Your task to perform on an android device: add a contact in the contacts app Image 0: 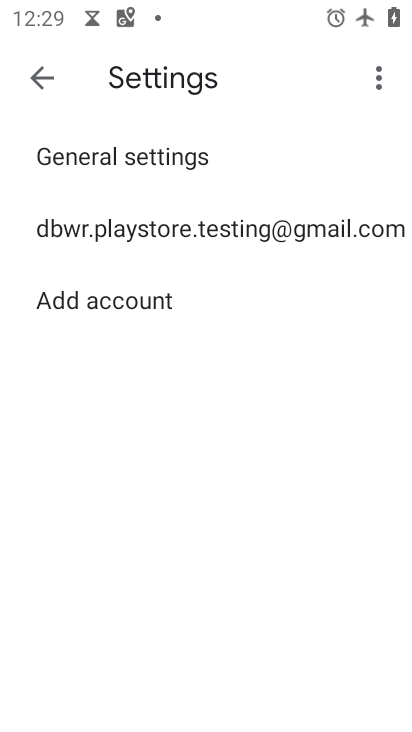
Step 0: press home button
Your task to perform on an android device: add a contact in the contacts app Image 1: 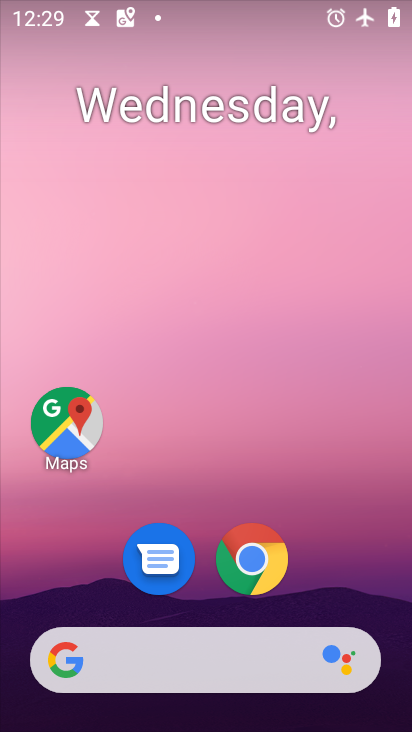
Step 1: drag from (344, 557) to (307, 44)
Your task to perform on an android device: add a contact in the contacts app Image 2: 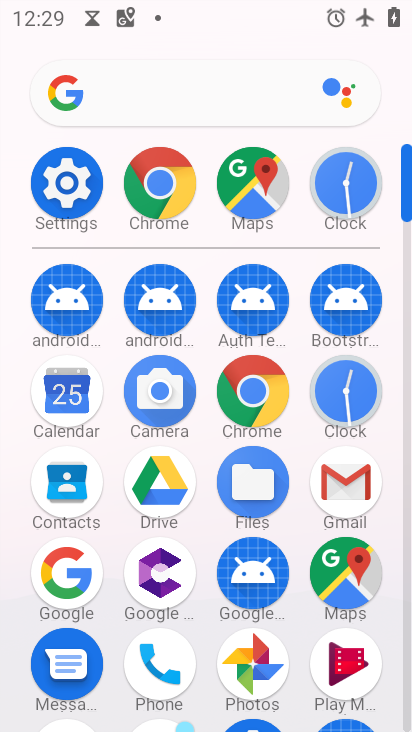
Step 2: drag from (390, 496) to (381, 114)
Your task to perform on an android device: add a contact in the contacts app Image 3: 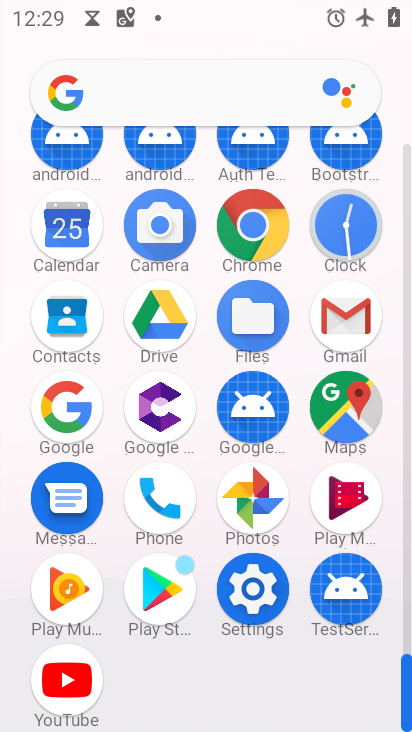
Step 3: click (163, 491)
Your task to perform on an android device: add a contact in the contacts app Image 4: 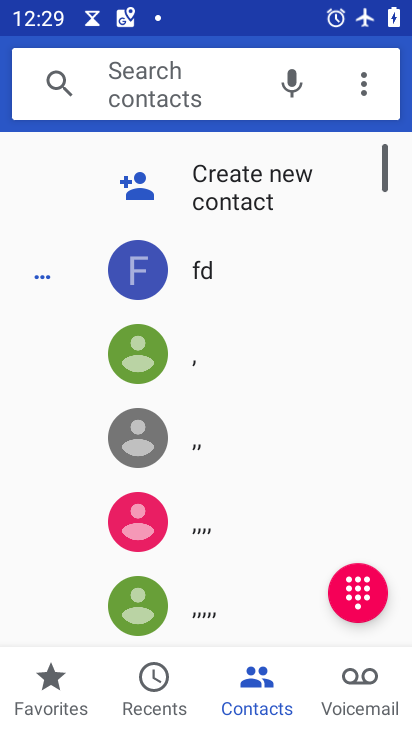
Step 4: click (227, 200)
Your task to perform on an android device: add a contact in the contacts app Image 5: 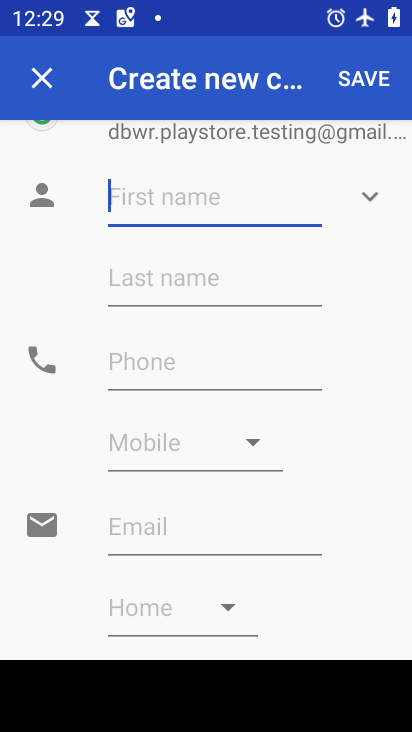
Step 5: type "etete"
Your task to perform on an android device: add a contact in the contacts app Image 6: 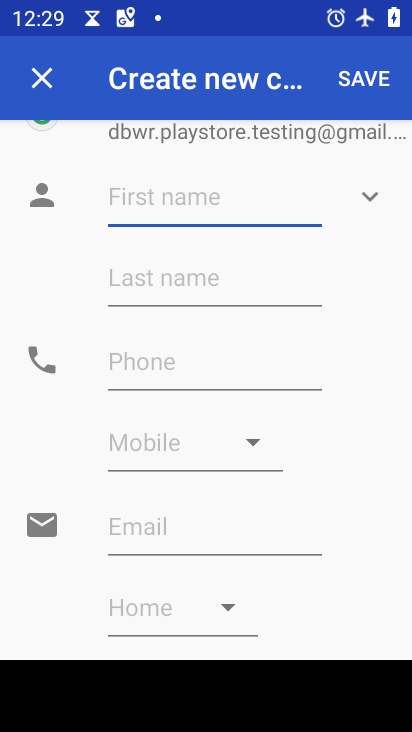
Step 6: click (179, 378)
Your task to perform on an android device: add a contact in the contacts app Image 7: 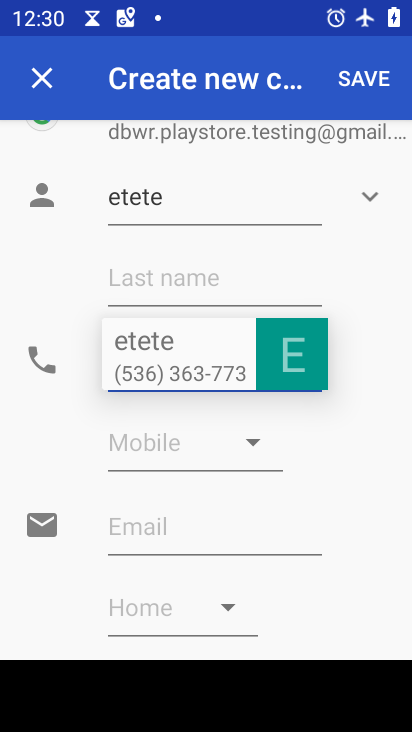
Step 7: type "6626262772"
Your task to perform on an android device: add a contact in the contacts app Image 8: 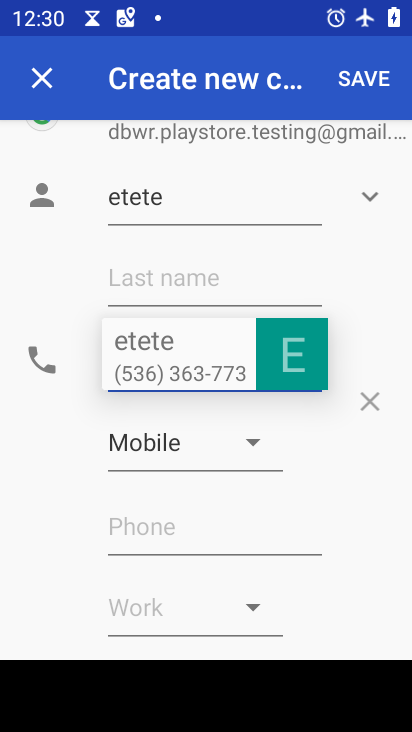
Step 8: click (366, 76)
Your task to perform on an android device: add a contact in the contacts app Image 9: 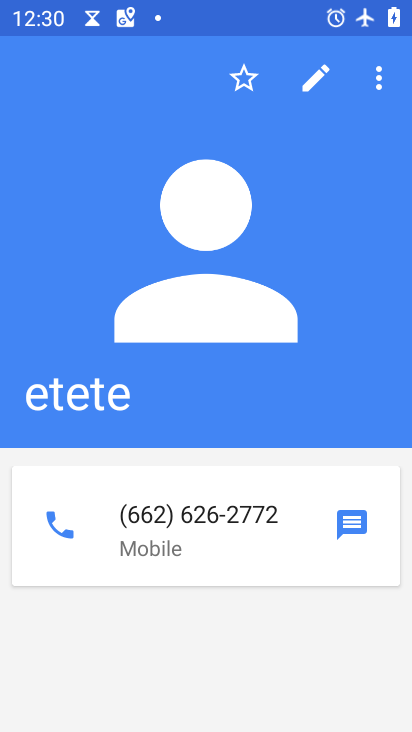
Step 9: task complete